Your task to perform on an android device: Show me the alarms in the clock app Image 0: 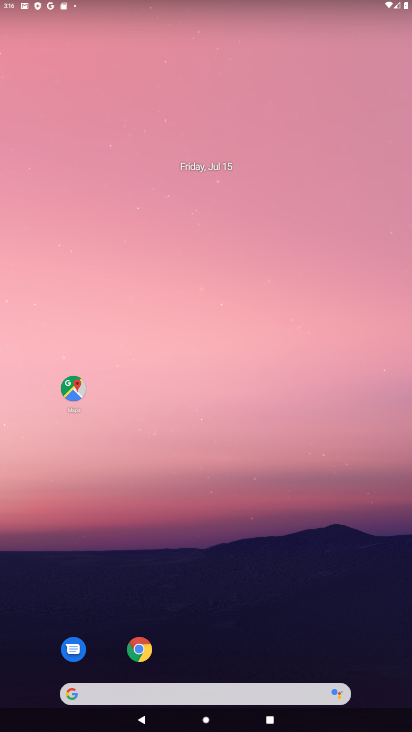
Step 0: drag from (211, 638) to (212, 147)
Your task to perform on an android device: Show me the alarms in the clock app Image 1: 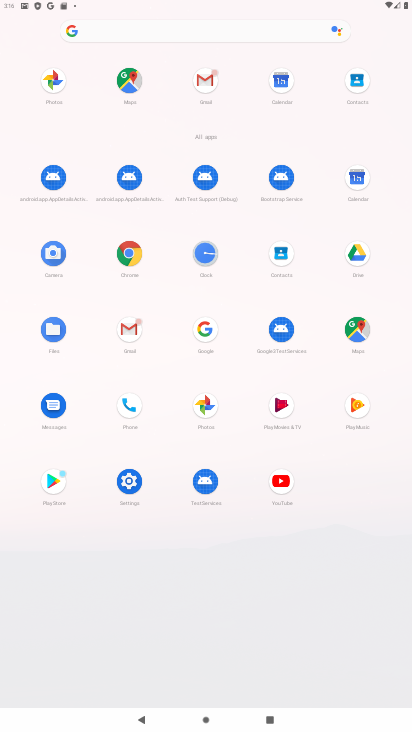
Step 1: click (209, 244)
Your task to perform on an android device: Show me the alarms in the clock app Image 2: 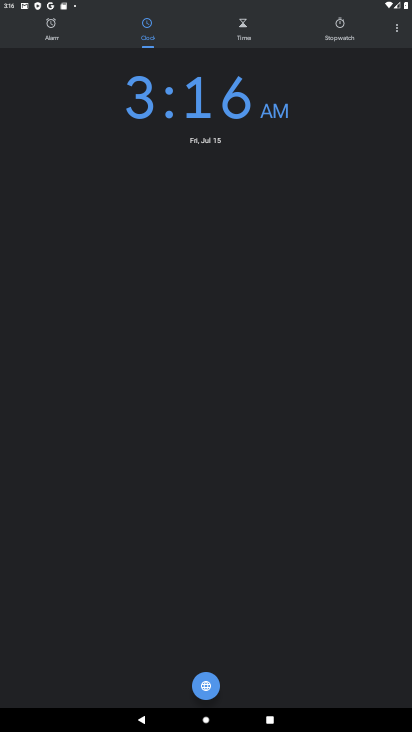
Step 2: click (58, 30)
Your task to perform on an android device: Show me the alarms in the clock app Image 3: 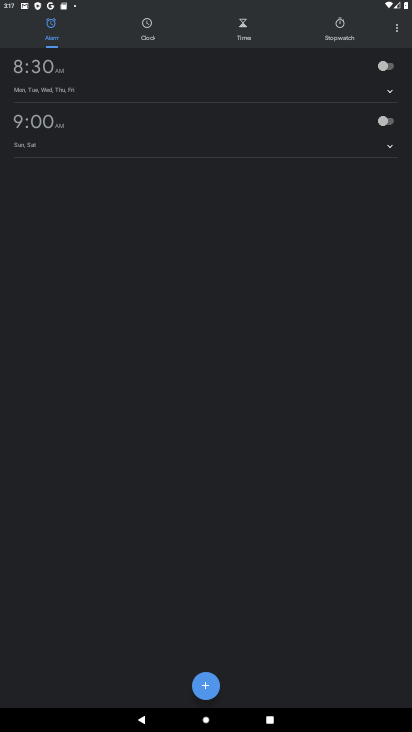
Step 3: task complete